Your task to perform on an android device: show emergency info Image 0: 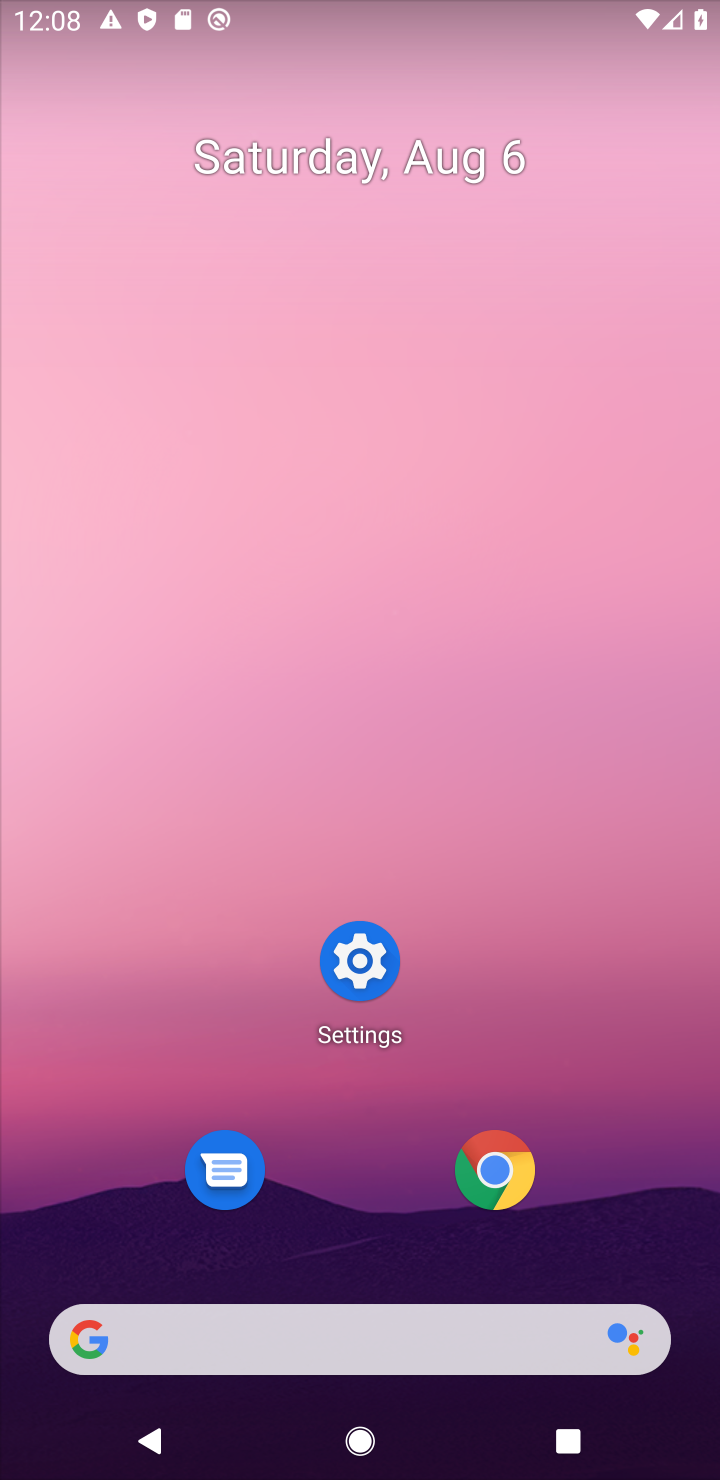
Step 0: click (367, 966)
Your task to perform on an android device: show emergency info Image 1: 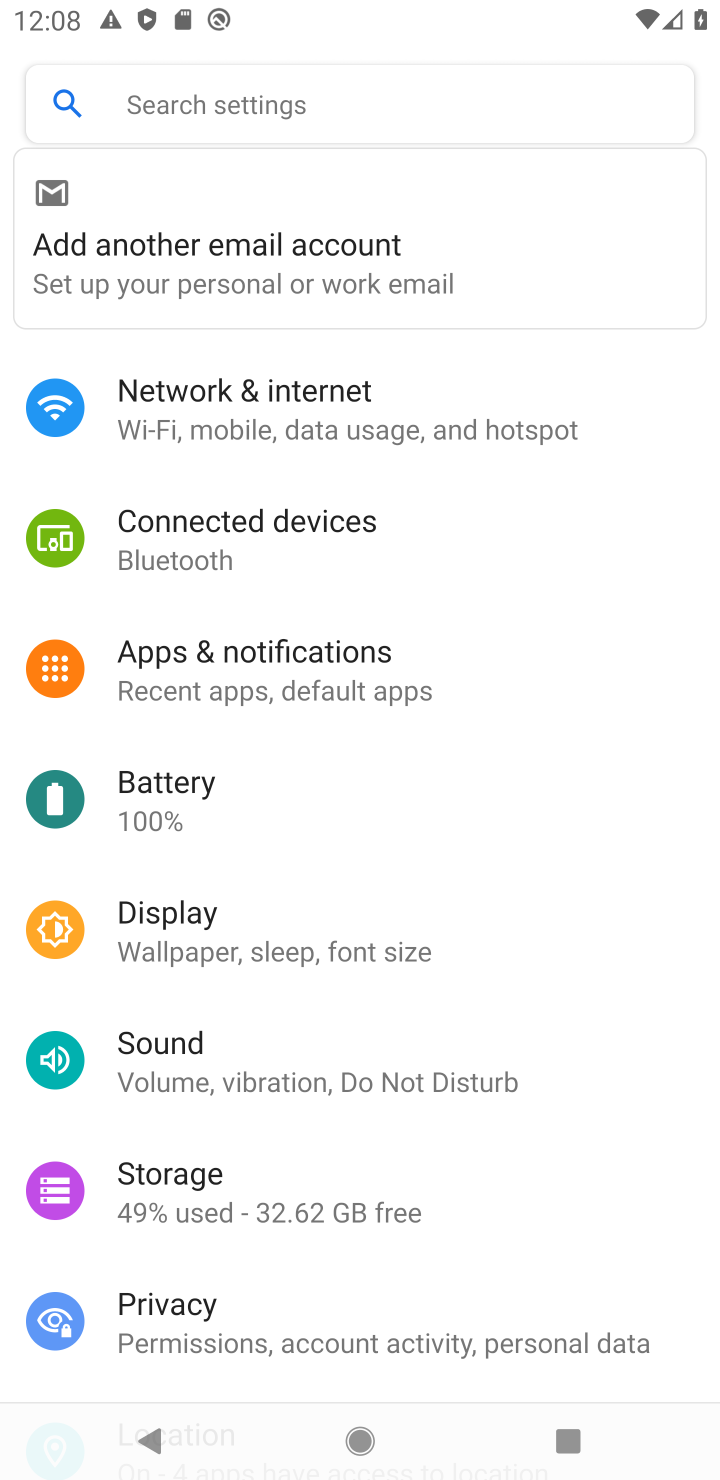
Step 1: drag from (593, 1167) to (482, 152)
Your task to perform on an android device: show emergency info Image 2: 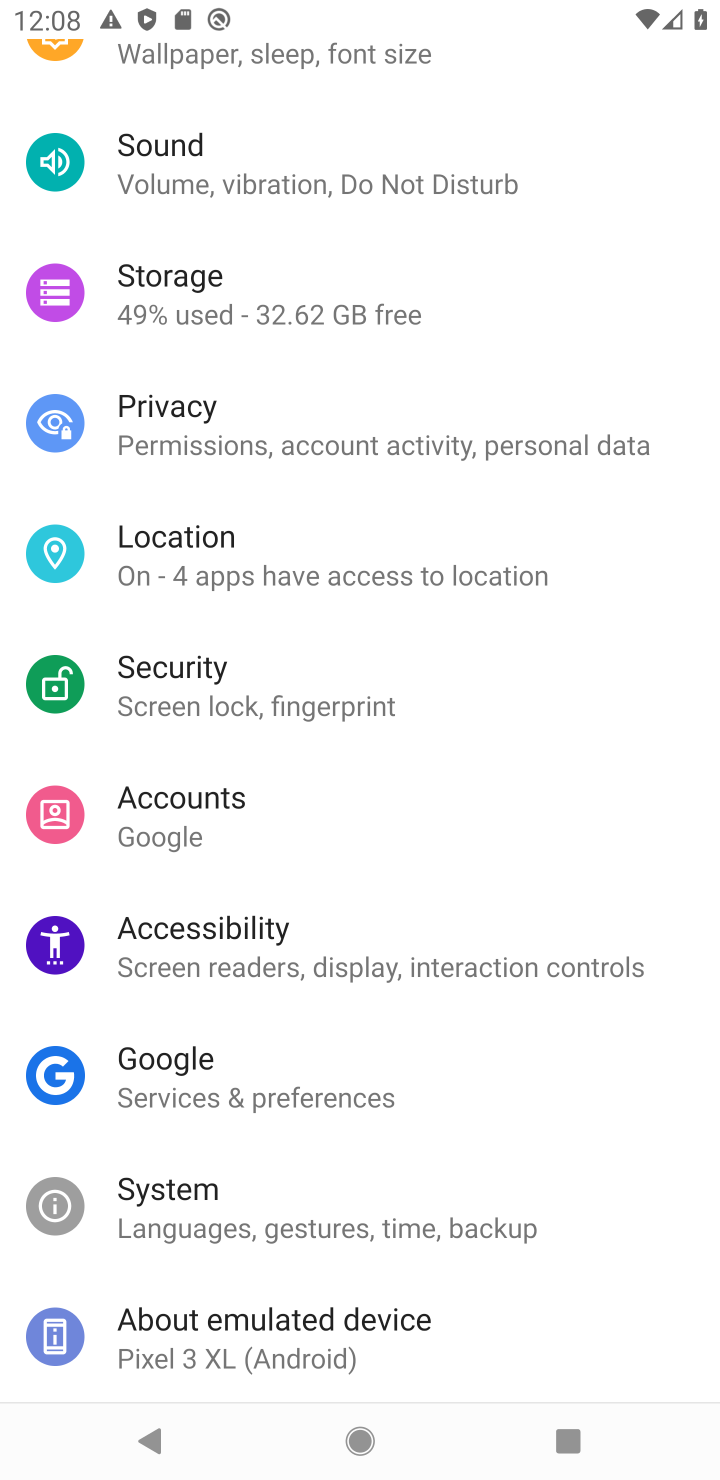
Step 2: click (200, 1323)
Your task to perform on an android device: show emergency info Image 3: 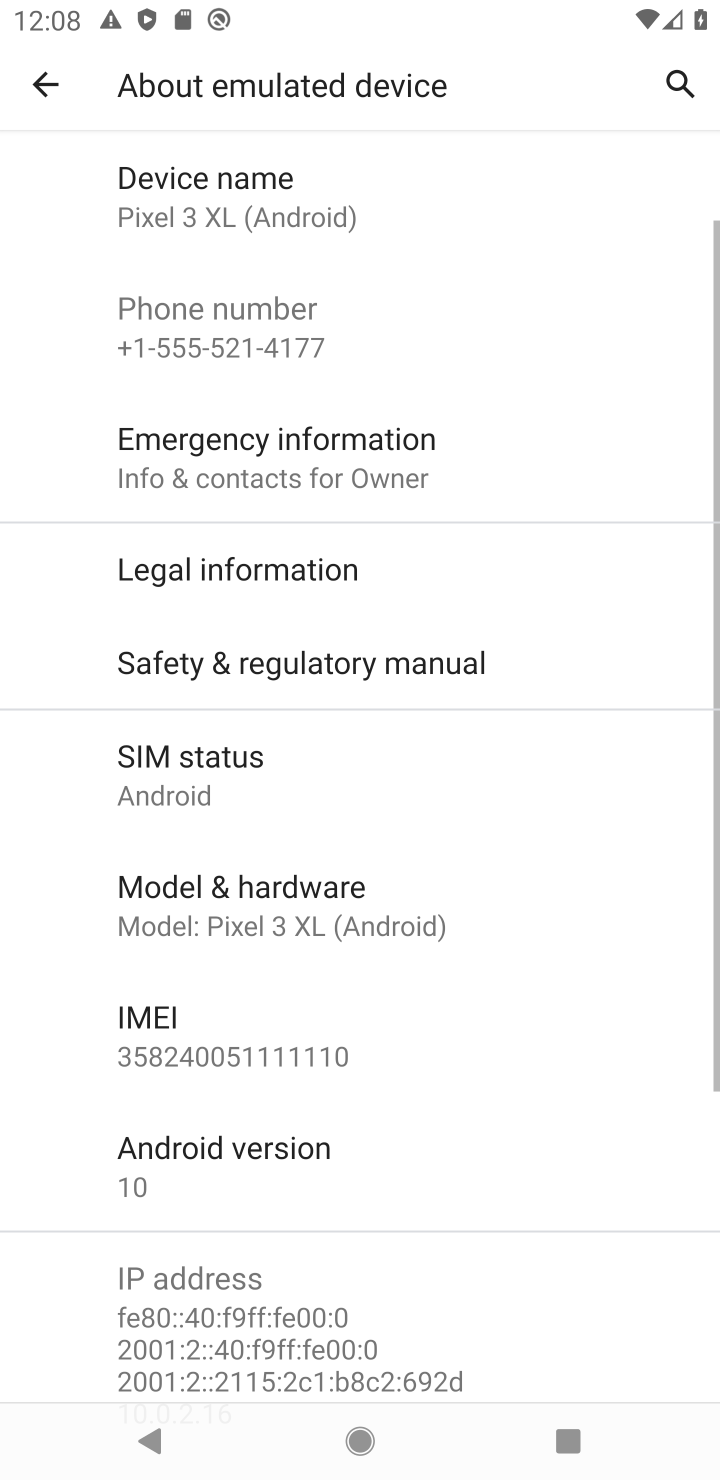
Step 3: click (197, 476)
Your task to perform on an android device: show emergency info Image 4: 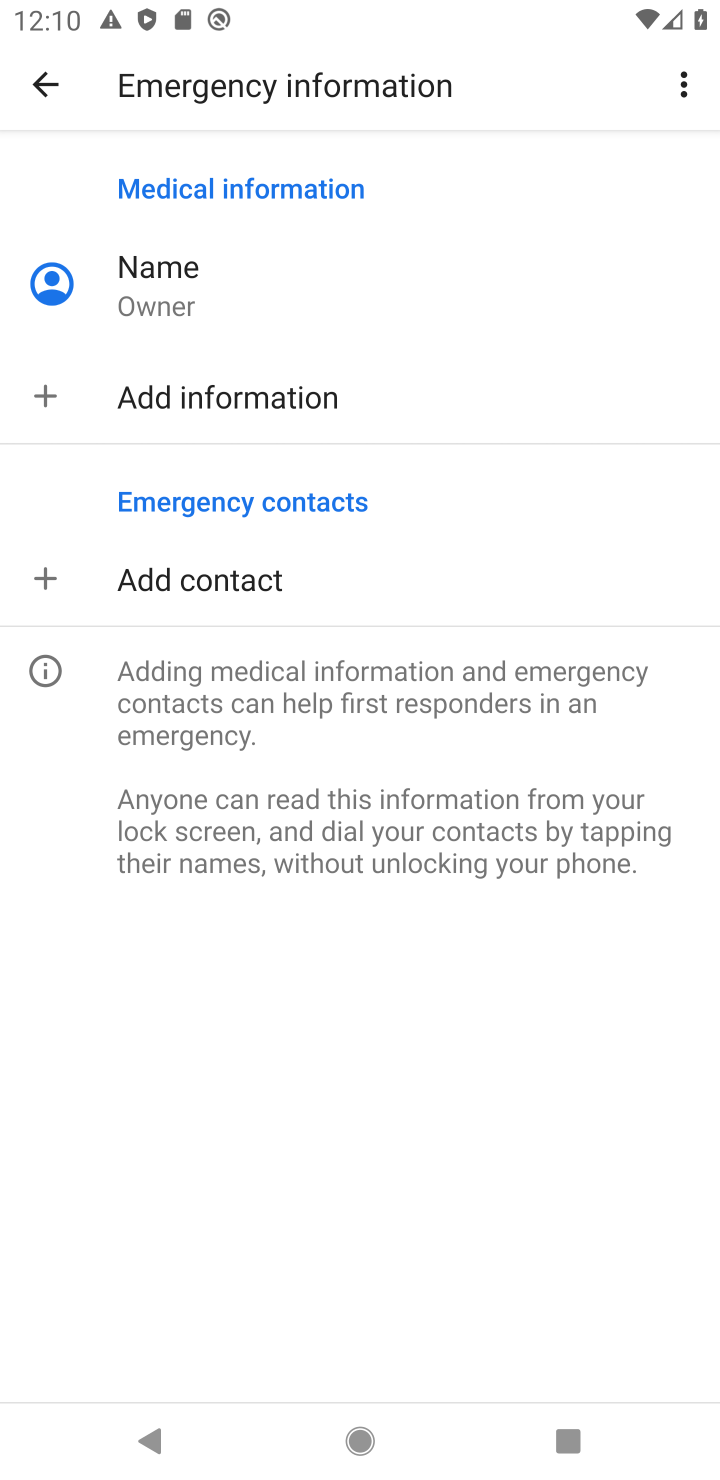
Step 4: task complete